Your task to perform on an android device: turn off translation in the chrome app Image 0: 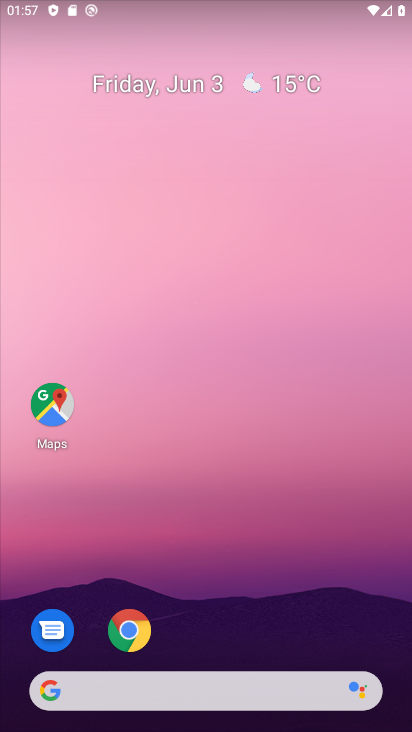
Step 0: click (126, 629)
Your task to perform on an android device: turn off translation in the chrome app Image 1: 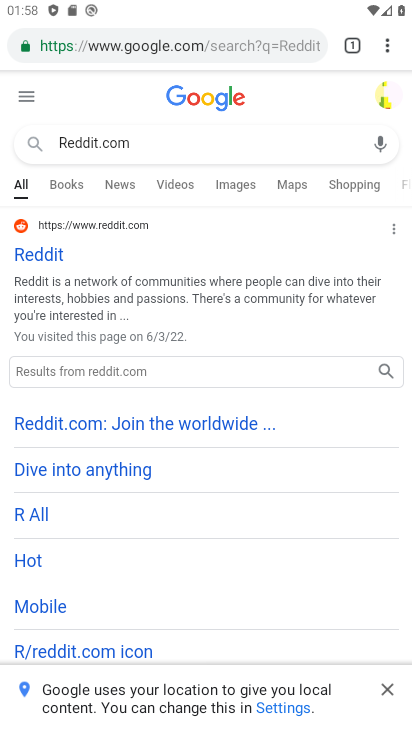
Step 1: click (389, 46)
Your task to perform on an android device: turn off translation in the chrome app Image 2: 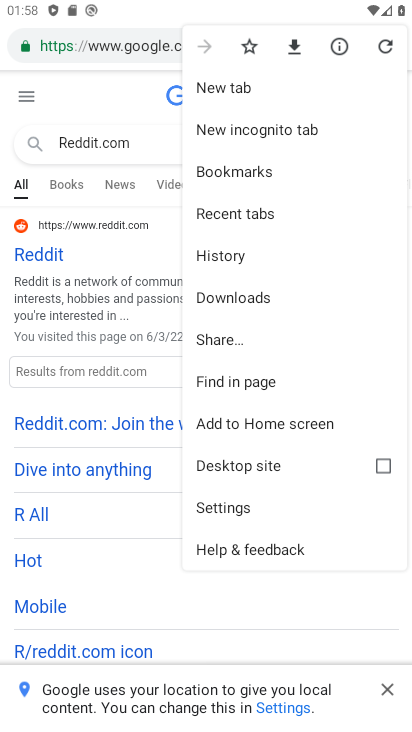
Step 2: click (231, 512)
Your task to perform on an android device: turn off translation in the chrome app Image 3: 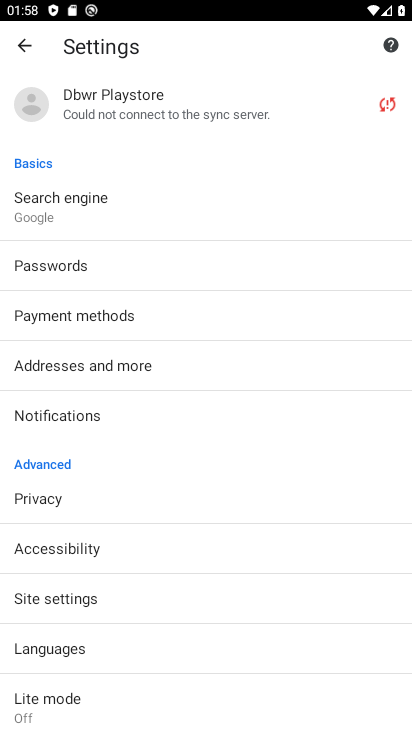
Step 3: click (72, 656)
Your task to perform on an android device: turn off translation in the chrome app Image 4: 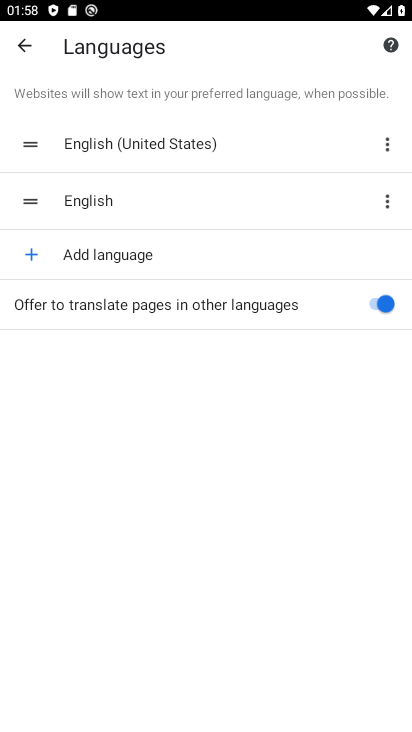
Step 4: click (379, 306)
Your task to perform on an android device: turn off translation in the chrome app Image 5: 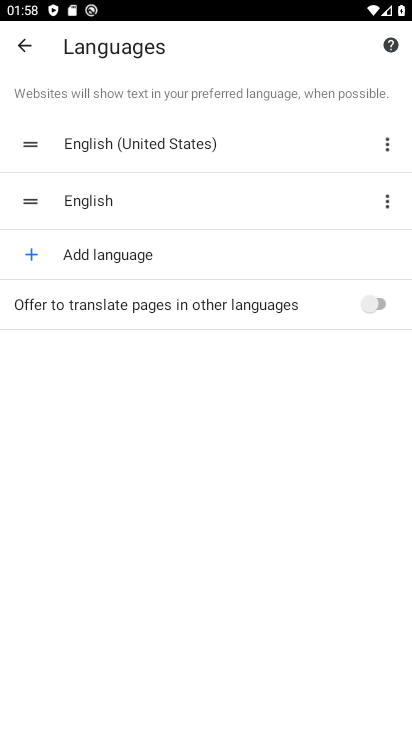
Step 5: task complete